Your task to perform on an android device: delete location history Image 0: 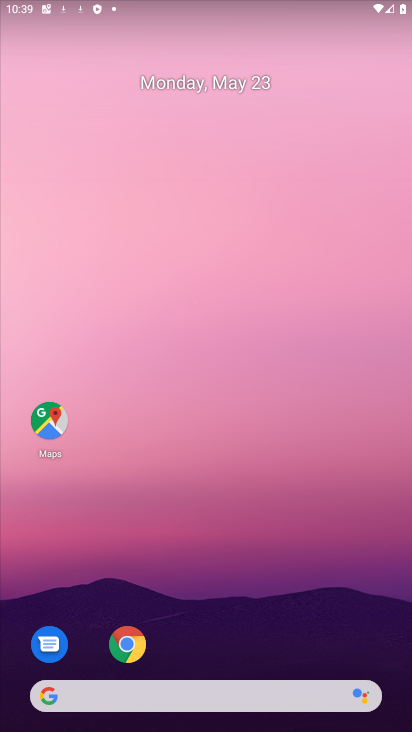
Step 0: press home button
Your task to perform on an android device: delete location history Image 1: 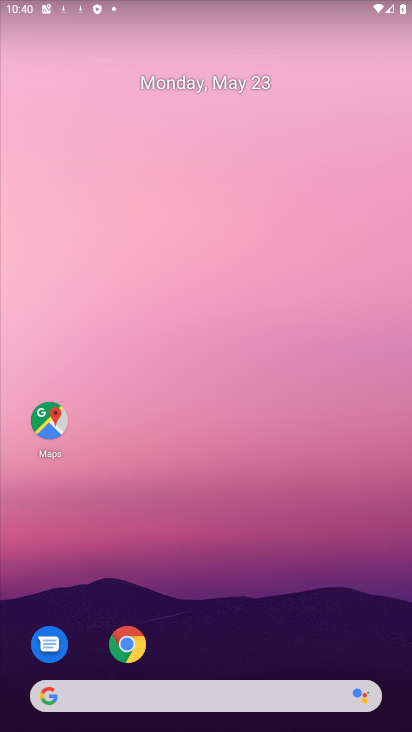
Step 1: drag from (296, 709) to (310, 78)
Your task to perform on an android device: delete location history Image 2: 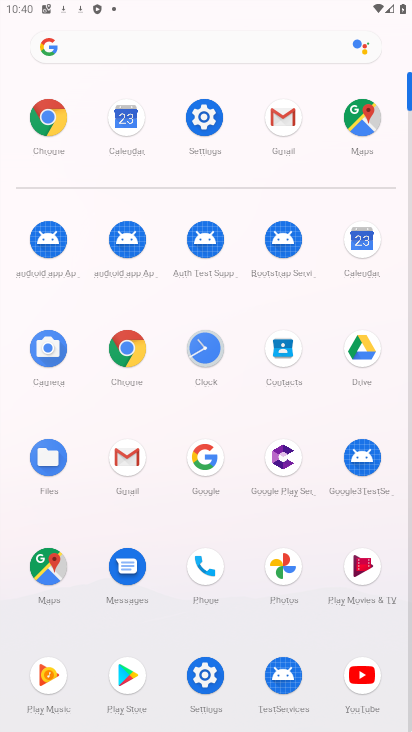
Step 2: click (199, 129)
Your task to perform on an android device: delete location history Image 3: 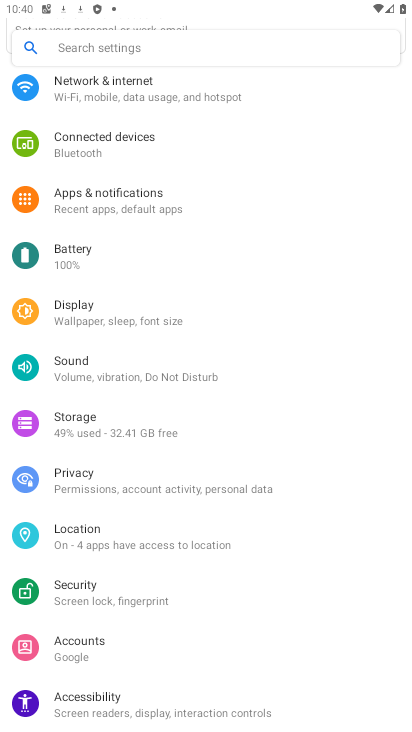
Step 3: click (121, 50)
Your task to perform on an android device: delete location history Image 4: 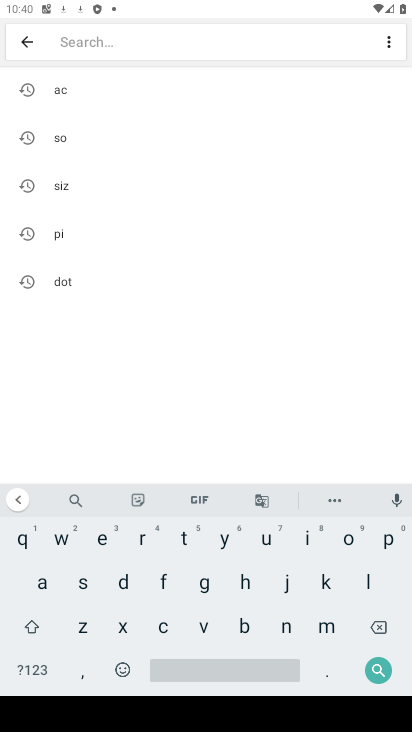
Step 4: click (362, 588)
Your task to perform on an android device: delete location history Image 5: 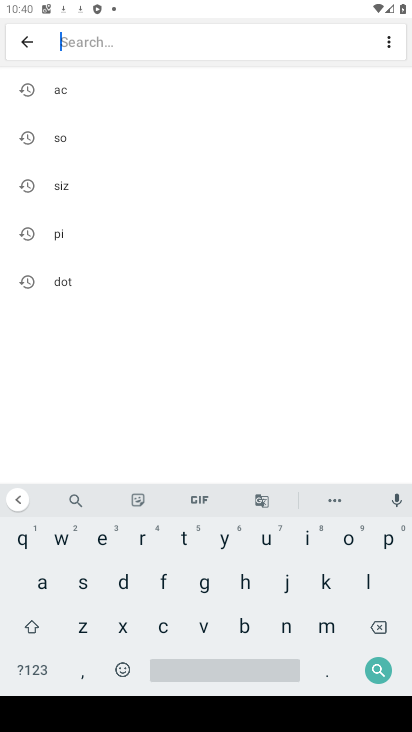
Step 5: click (347, 542)
Your task to perform on an android device: delete location history Image 6: 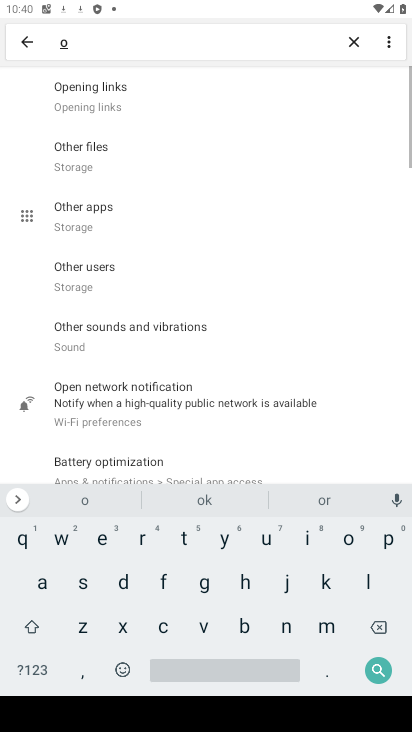
Step 6: click (382, 636)
Your task to perform on an android device: delete location history Image 7: 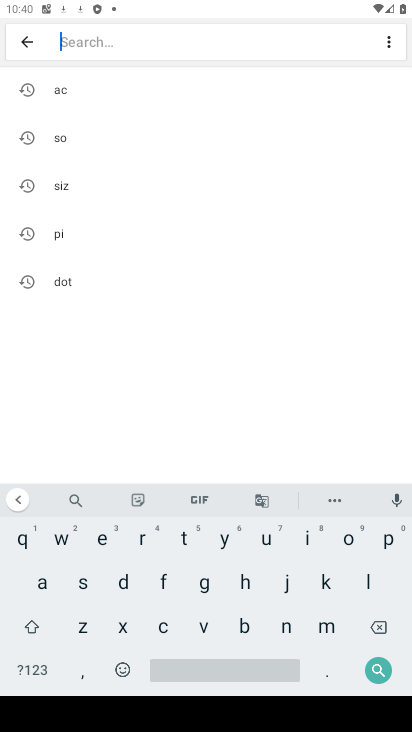
Step 7: click (367, 572)
Your task to perform on an android device: delete location history Image 8: 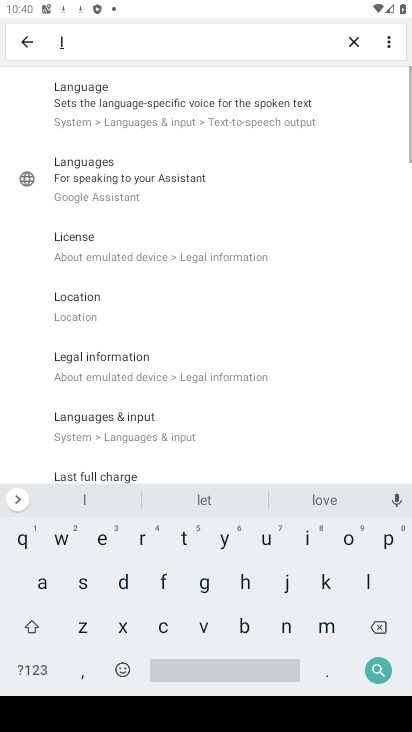
Step 8: click (347, 541)
Your task to perform on an android device: delete location history Image 9: 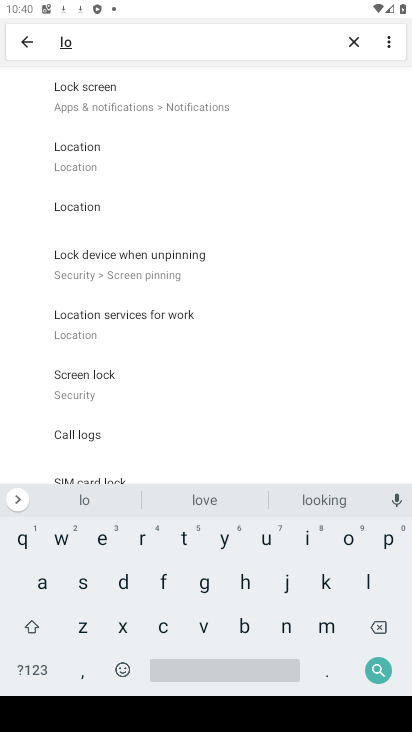
Step 9: click (83, 153)
Your task to perform on an android device: delete location history Image 10: 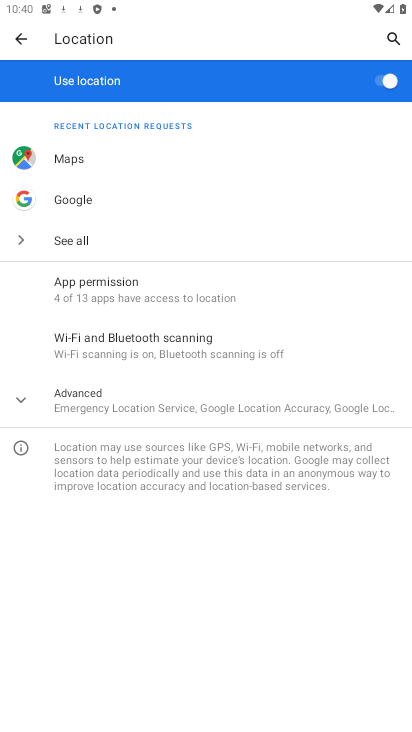
Step 10: click (18, 404)
Your task to perform on an android device: delete location history Image 11: 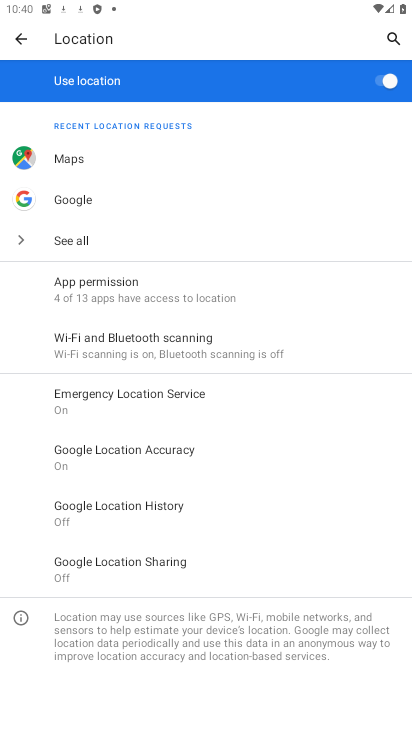
Step 11: click (119, 503)
Your task to perform on an android device: delete location history Image 12: 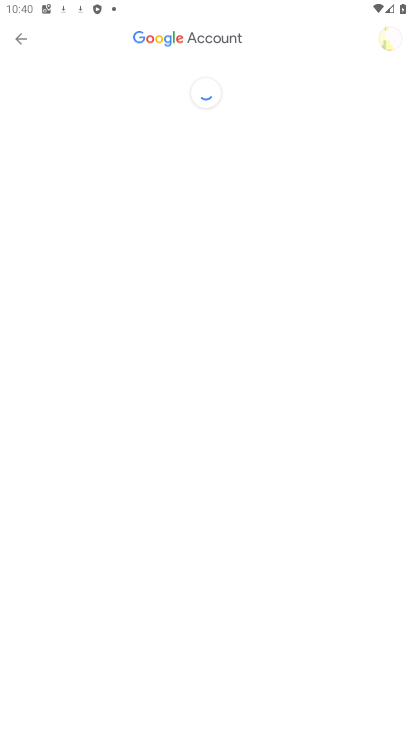
Step 12: drag from (285, 596) to (250, 63)
Your task to perform on an android device: delete location history Image 13: 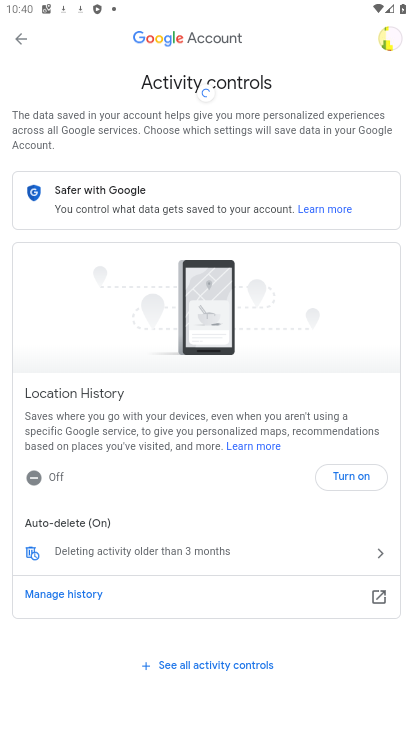
Step 13: drag from (232, 488) to (239, 160)
Your task to perform on an android device: delete location history Image 14: 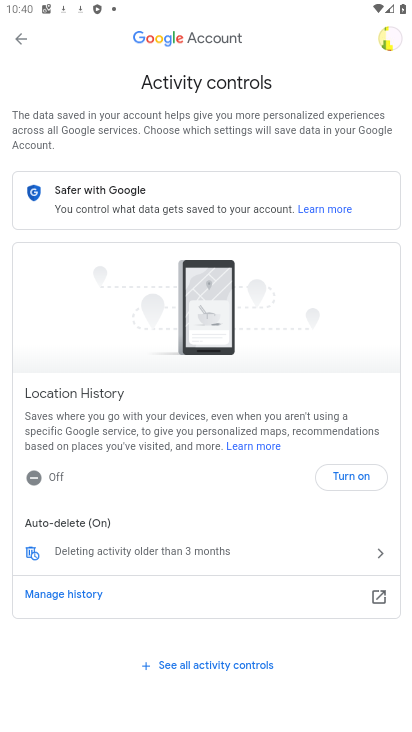
Step 14: click (134, 549)
Your task to perform on an android device: delete location history Image 15: 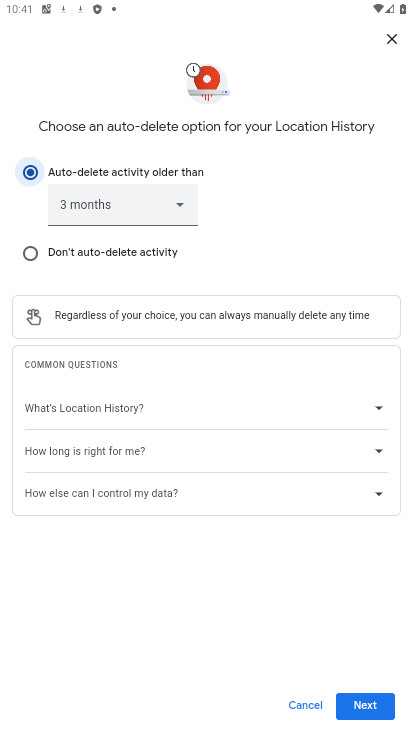
Step 15: task complete